Your task to perform on an android device: see sites visited before in the chrome app Image 0: 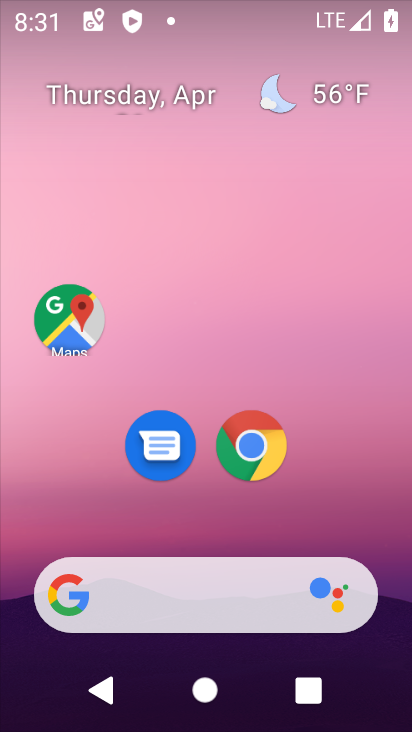
Step 0: click (254, 450)
Your task to perform on an android device: see sites visited before in the chrome app Image 1: 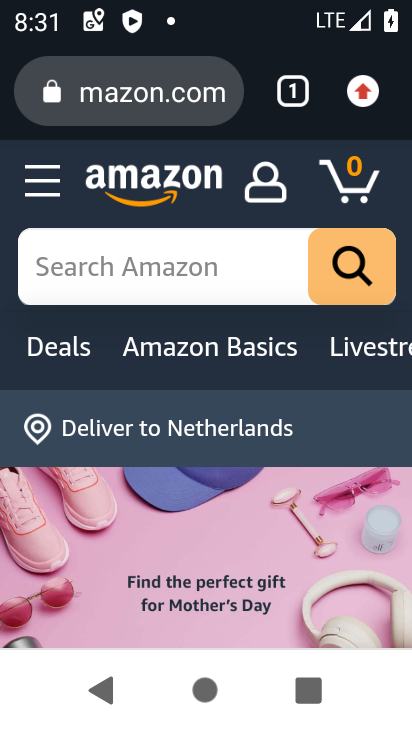
Step 1: click (356, 97)
Your task to perform on an android device: see sites visited before in the chrome app Image 2: 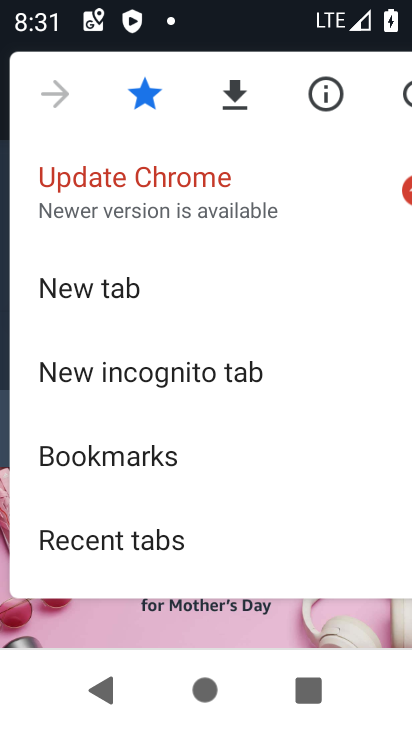
Step 2: drag from (262, 510) to (227, 109)
Your task to perform on an android device: see sites visited before in the chrome app Image 3: 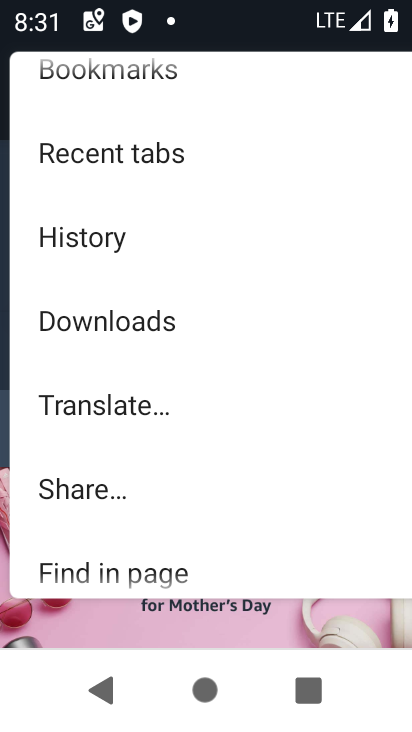
Step 3: drag from (191, 482) to (201, 172)
Your task to perform on an android device: see sites visited before in the chrome app Image 4: 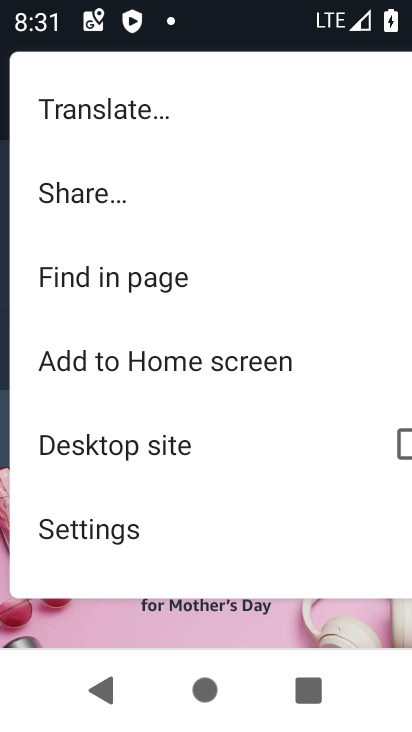
Step 4: drag from (206, 428) to (215, 187)
Your task to perform on an android device: see sites visited before in the chrome app Image 5: 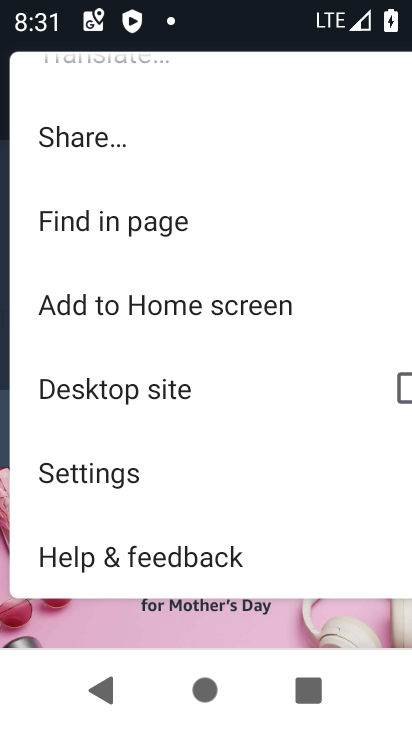
Step 5: drag from (259, 198) to (250, 540)
Your task to perform on an android device: see sites visited before in the chrome app Image 6: 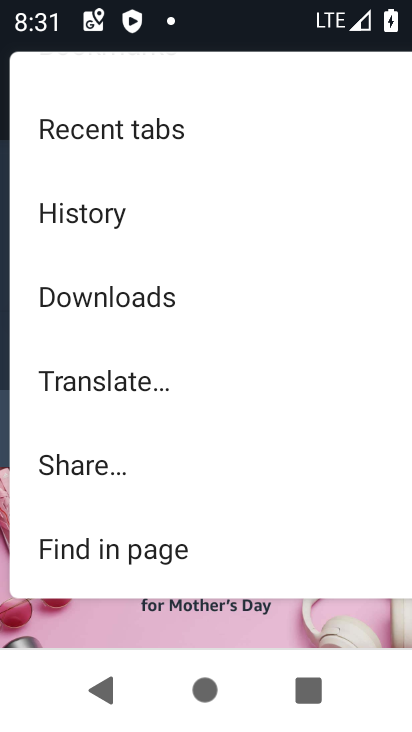
Step 6: click (66, 226)
Your task to perform on an android device: see sites visited before in the chrome app Image 7: 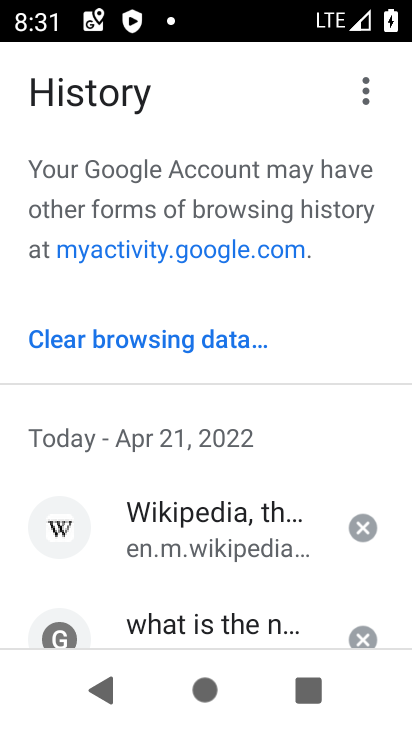
Step 7: task complete